Your task to perform on an android device: set default search engine in the chrome app Image 0: 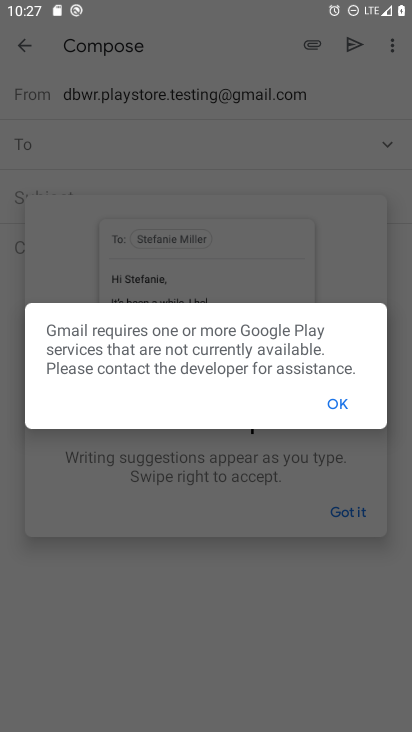
Step 0: press home button
Your task to perform on an android device: set default search engine in the chrome app Image 1: 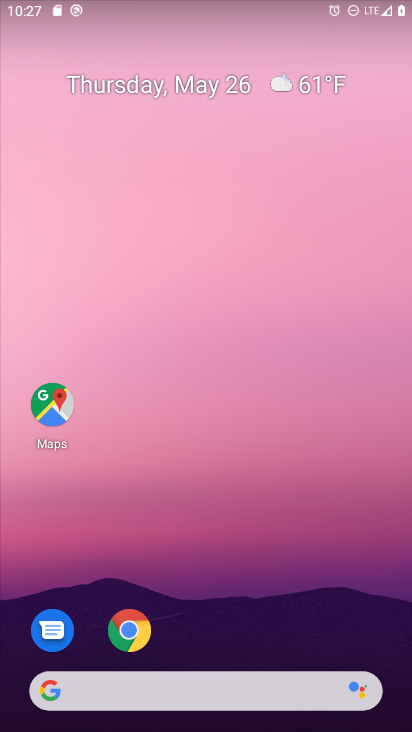
Step 1: click (129, 610)
Your task to perform on an android device: set default search engine in the chrome app Image 2: 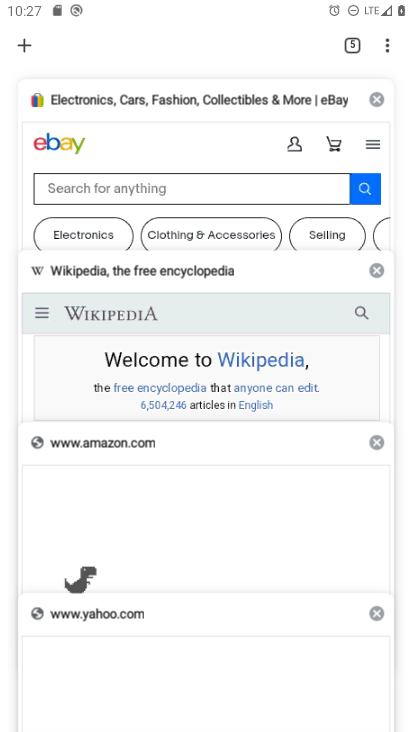
Step 2: click (26, 45)
Your task to perform on an android device: set default search engine in the chrome app Image 3: 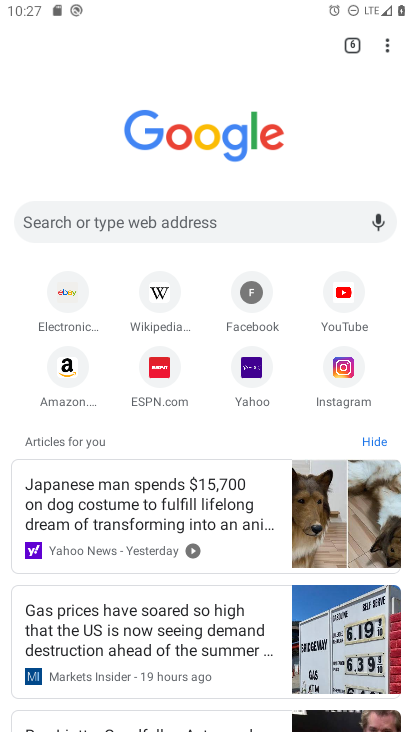
Step 3: click (393, 43)
Your task to perform on an android device: set default search engine in the chrome app Image 4: 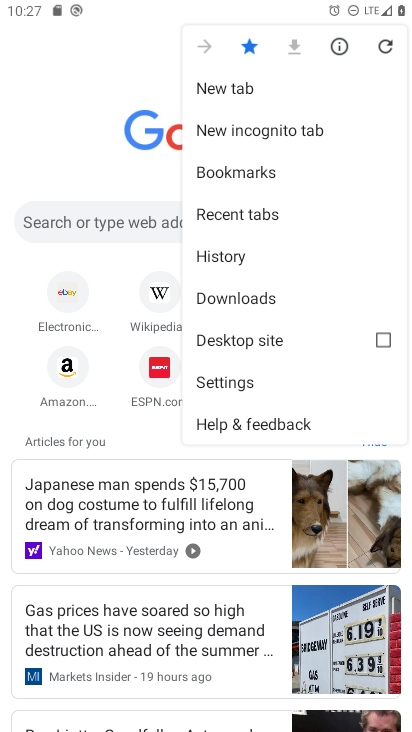
Step 4: click (210, 366)
Your task to perform on an android device: set default search engine in the chrome app Image 5: 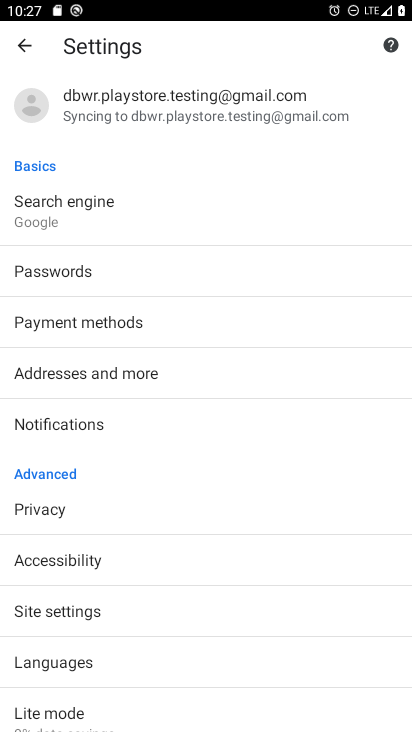
Step 5: click (50, 219)
Your task to perform on an android device: set default search engine in the chrome app Image 6: 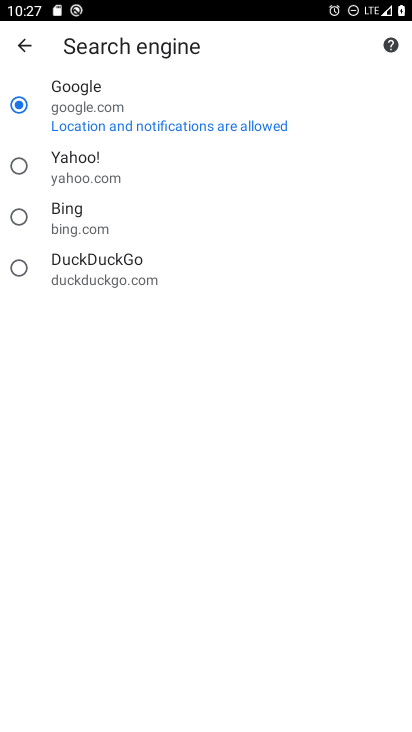
Step 6: task complete